Your task to perform on an android device: open the mobile data screen to see how much data has been used Image 0: 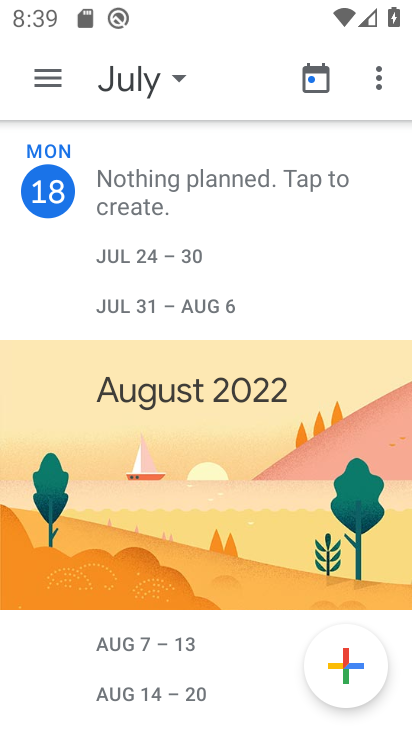
Step 0: press home button
Your task to perform on an android device: open the mobile data screen to see how much data has been used Image 1: 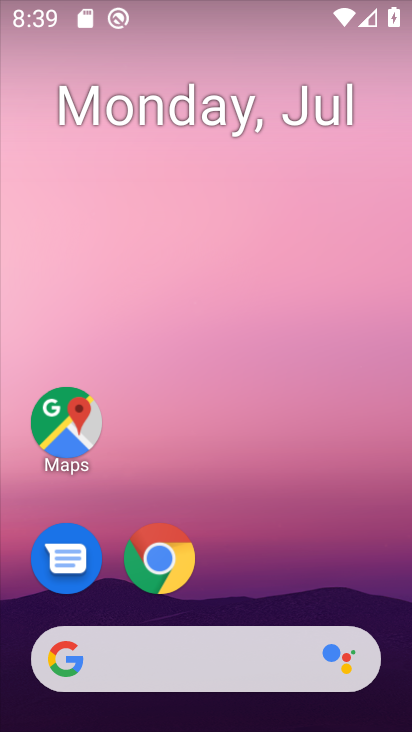
Step 1: drag from (348, 574) to (363, 124)
Your task to perform on an android device: open the mobile data screen to see how much data has been used Image 2: 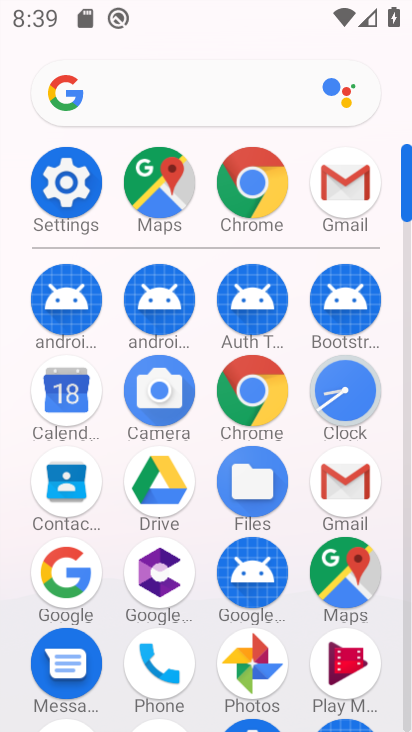
Step 2: click (71, 182)
Your task to perform on an android device: open the mobile data screen to see how much data has been used Image 3: 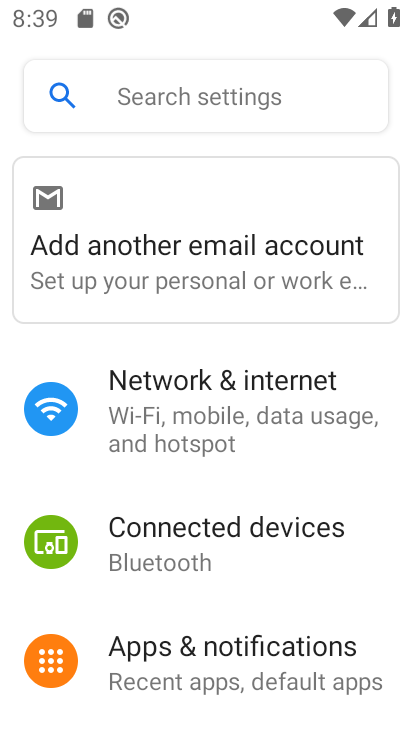
Step 3: click (158, 387)
Your task to perform on an android device: open the mobile data screen to see how much data has been used Image 4: 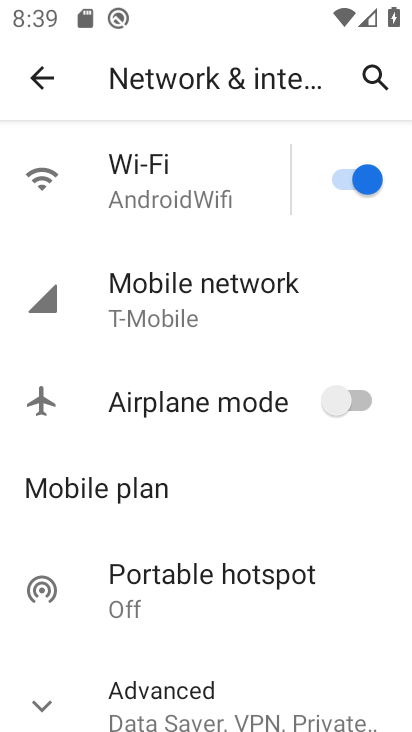
Step 4: click (183, 306)
Your task to perform on an android device: open the mobile data screen to see how much data has been used Image 5: 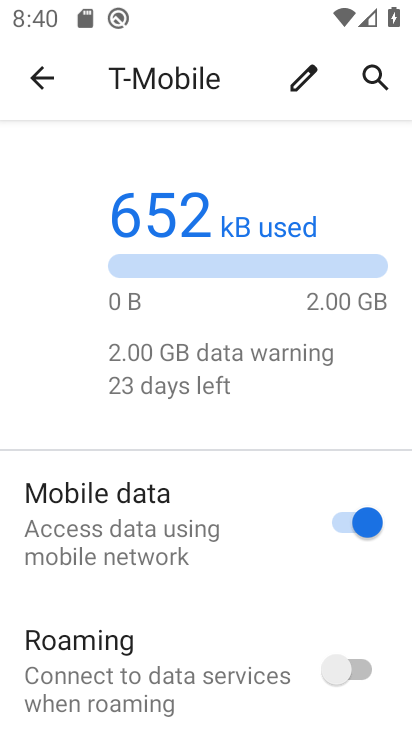
Step 5: drag from (262, 550) to (271, 475)
Your task to perform on an android device: open the mobile data screen to see how much data has been used Image 6: 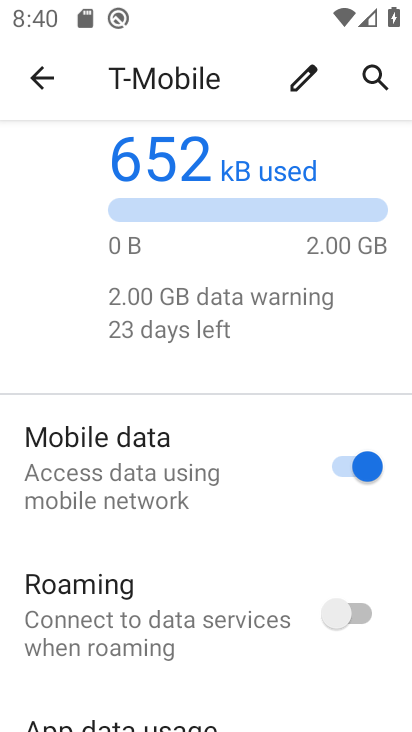
Step 6: drag from (259, 633) to (258, 508)
Your task to perform on an android device: open the mobile data screen to see how much data has been used Image 7: 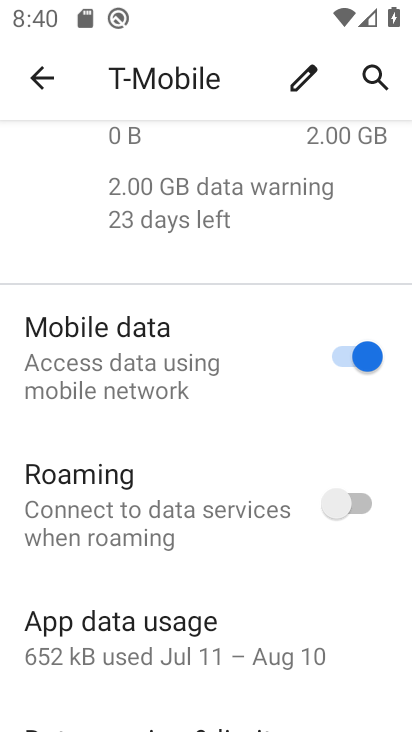
Step 7: click (217, 631)
Your task to perform on an android device: open the mobile data screen to see how much data has been used Image 8: 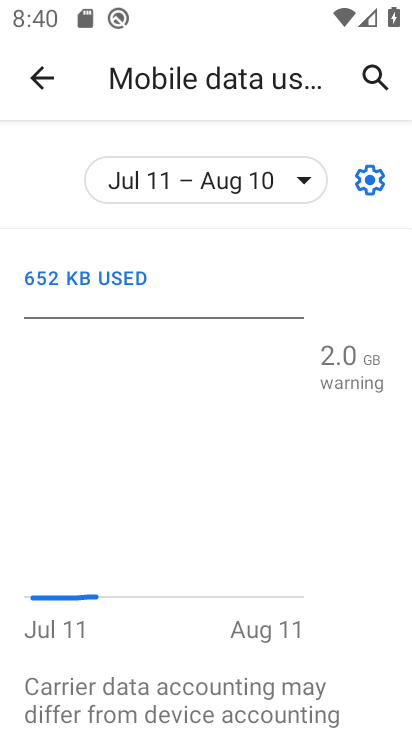
Step 8: task complete